Your task to perform on an android device: Open Google Image 0: 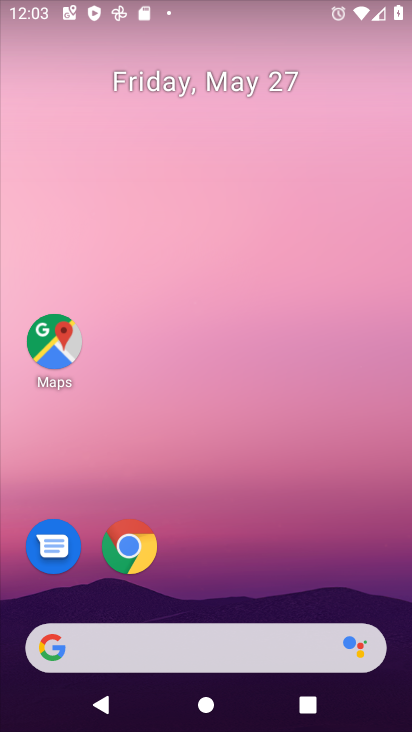
Step 0: drag from (251, 538) to (310, 68)
Your task to perform on an android device: Open Google Image 1: 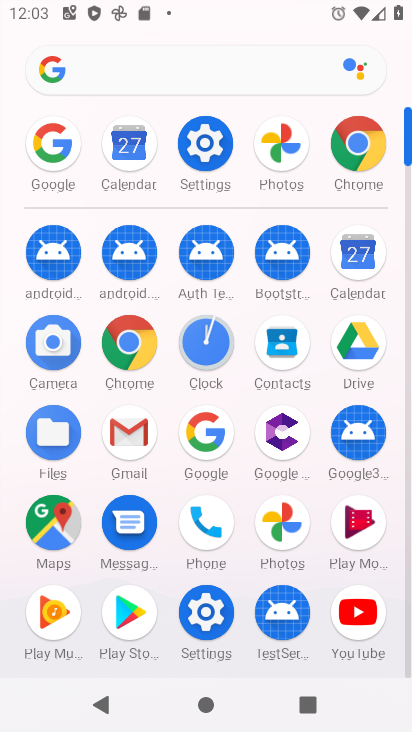
Step 1: click (213, 430)
Your task to perform on an android device: Open Google Image 2: 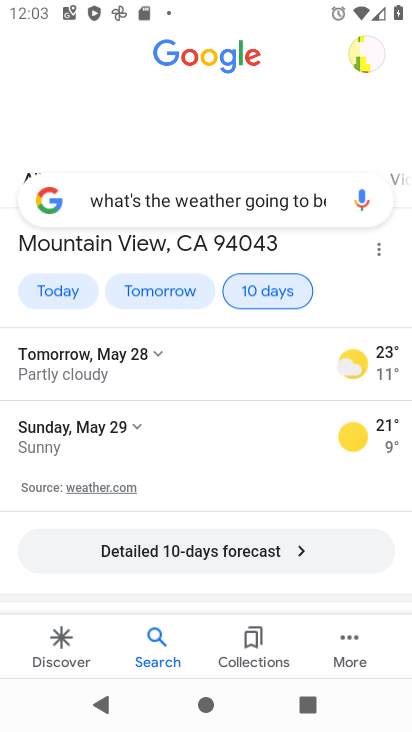
Step 2: task complete